Your task to perform on an android device: Play the last video I watched on Youtube Image 0: 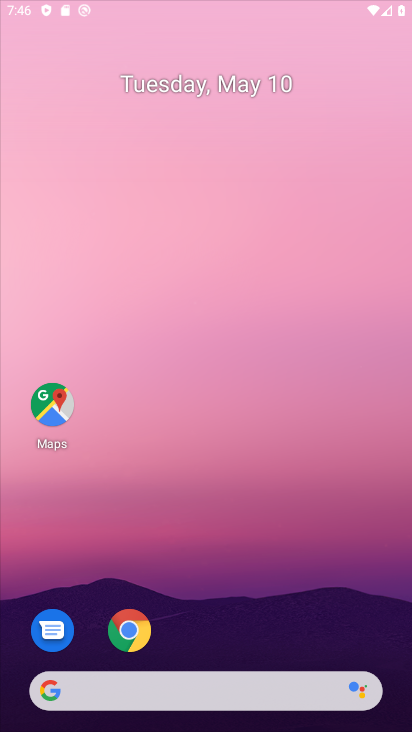
Step 0: press home button
Your task to perform on an android device: Play the last video I watched on Youtube Image 1: 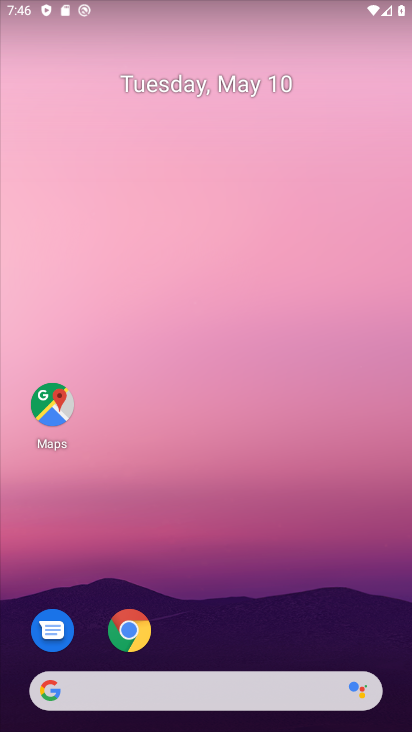
Step 1: press home button
Your task to perform on an android device: Play the last video I watched on Youtube Image 2: 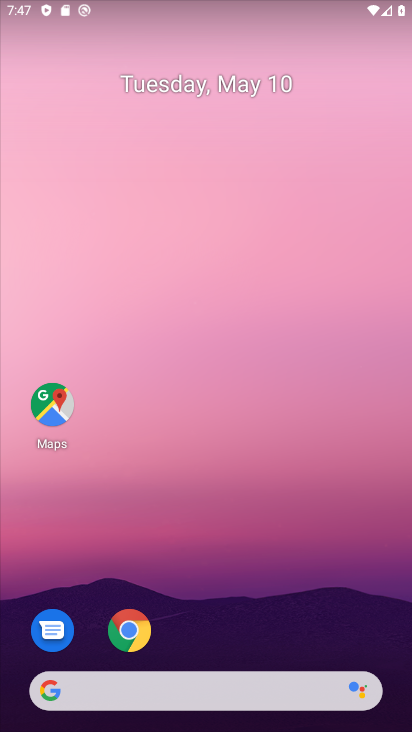
Step 2: drag from (282, 699) to (249, 0)
Your task to perform on an android device: Play the last video I watched on Youtube Image 3: 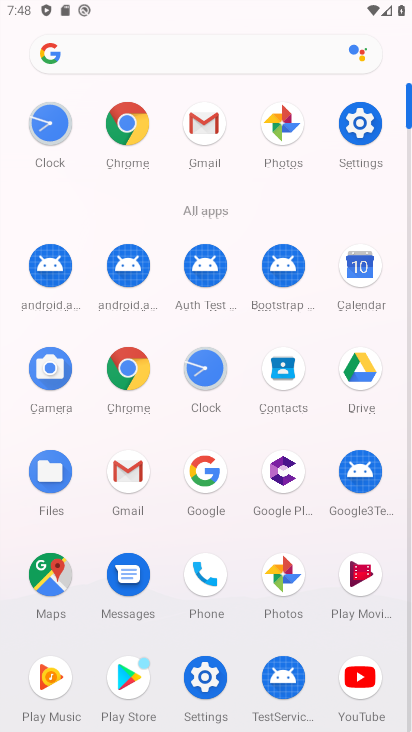
Step 3: click (369, 680)
Your task to perform on an android device: Play the last video I watched on Youtube Image 4: 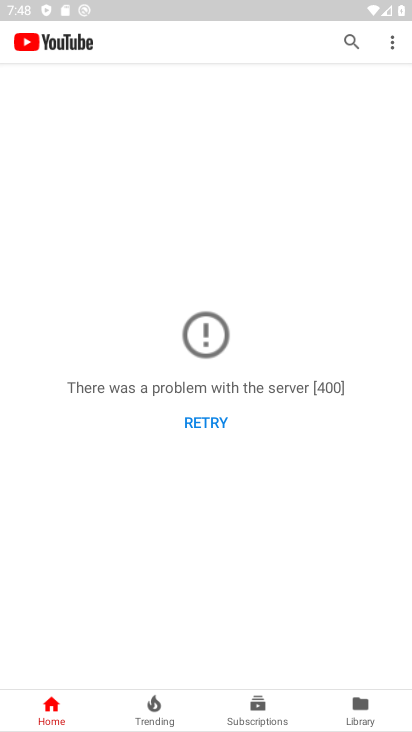
Step 4: click (204, 420)
Your task to perform on an android device: Play the last video I watched on Youtube Image 5: 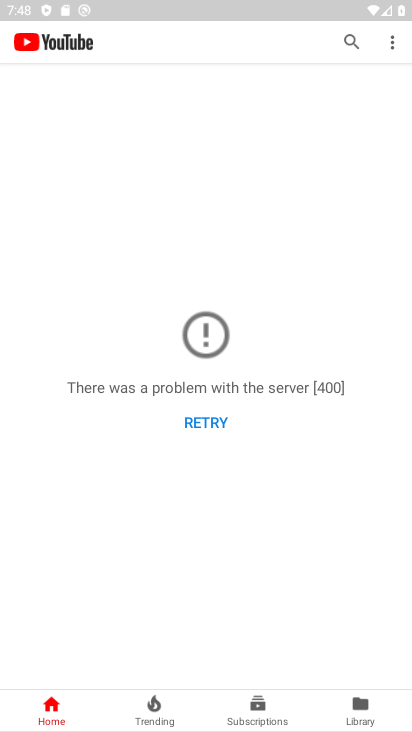
Step 5: click (363, 704)
Your task to perform on an android device: Play the last video I watched on Youtube Image 6: 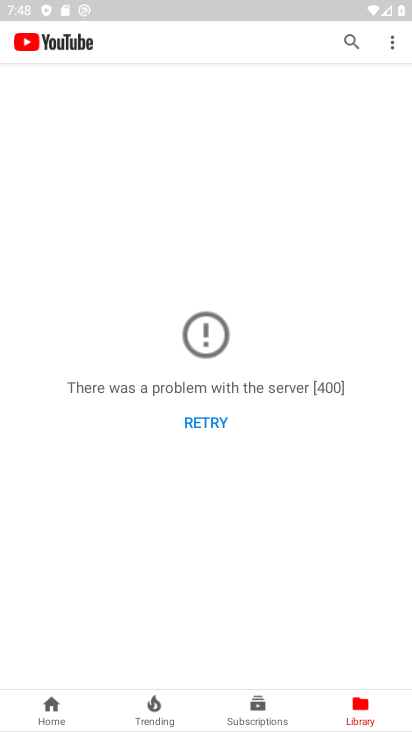
Step 6: task complete